Your task to perform on an android device: open chrome privacy settings Image 0: 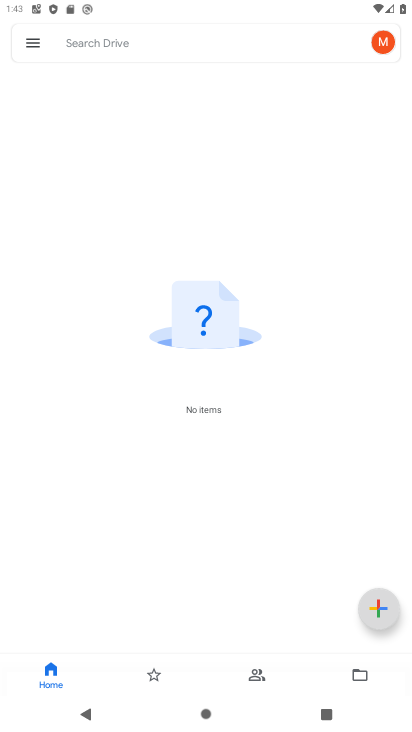
Step 0: press home button
Your task to perform on an android device: open chrome privacy settings Image 1: 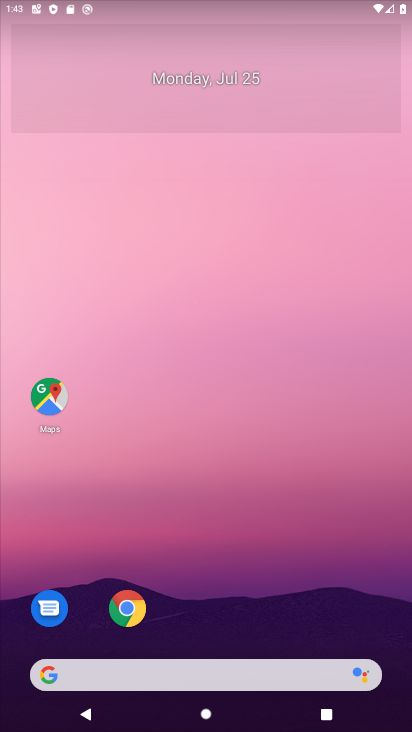
Step 1: drag from (253, 484) to (262, 193)
Your task to perform on an android device: open chrome privacy settings Image 2: 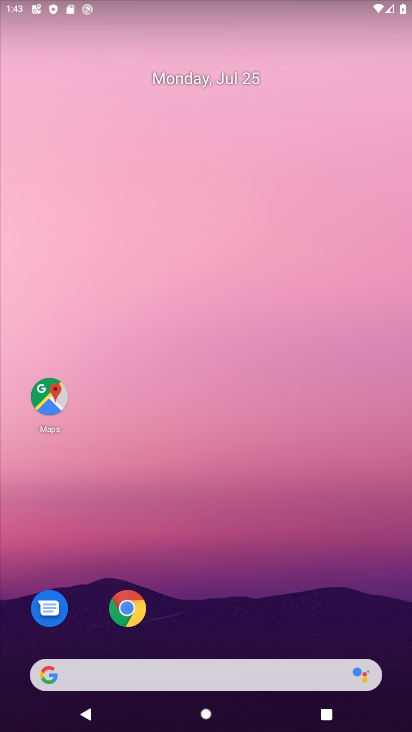
Step 2: drag from (220, 573) to (195, 119)
Your task to perform on an android device: open chrome privacy settings Image 3: 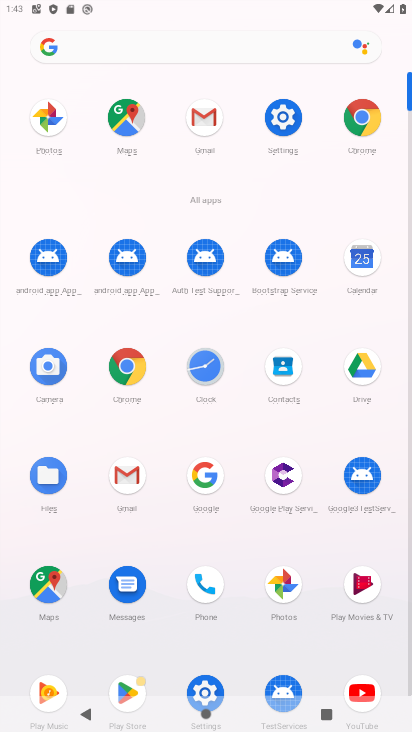
Step 3: click (368, 110)
Your task to perform on an android device: open chrome privacy settings Image 4: 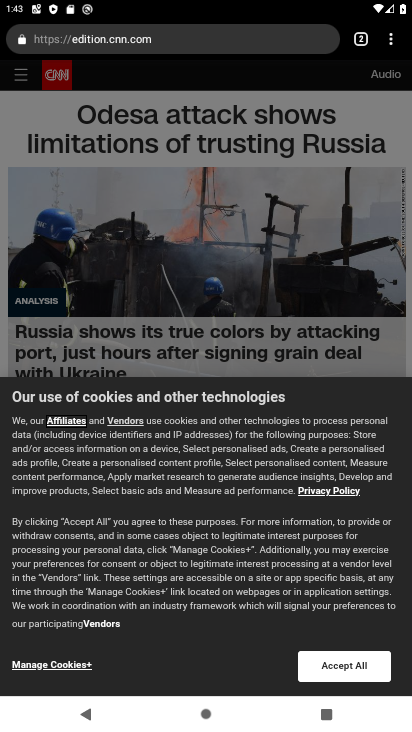
Step 4: click (389, 43)
Your task to perform on an android device: open chrome privacy settings Image 5: 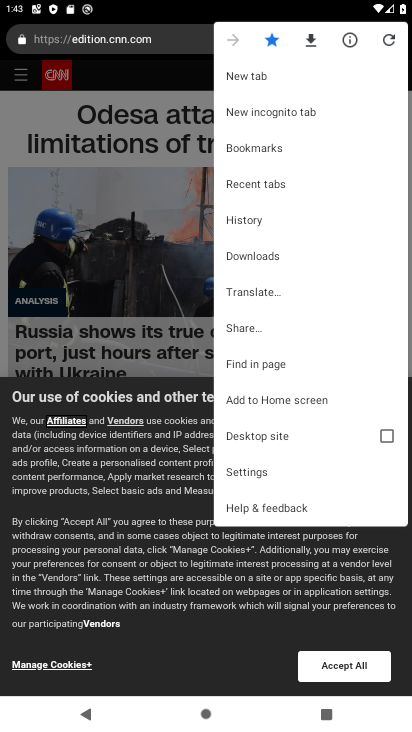
Step 5: click (274, 471)
Your task to perform on an android device: open chrome privacy settings Image 6: 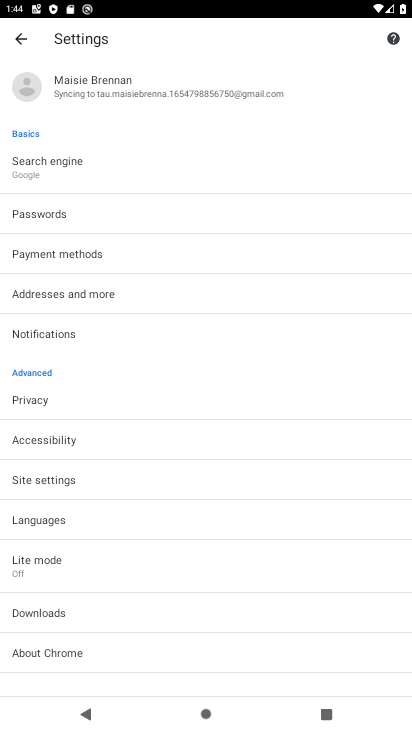
Step 6: task complete